Your task to perform on an android device: uninstall "Firefox Browser" Image 0: 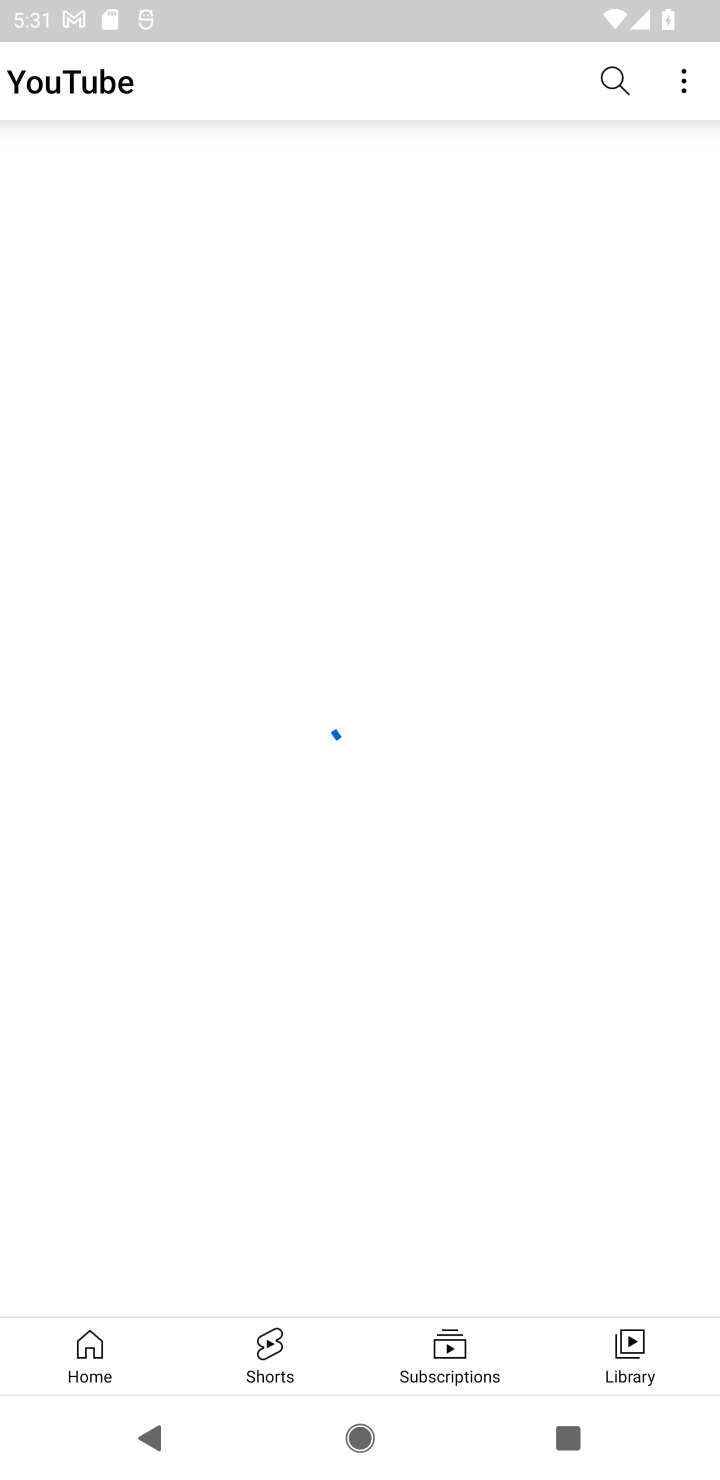
Step 0: press home button
Your task to perform on an android device: uninstall "Firefox Browser" Image 1: 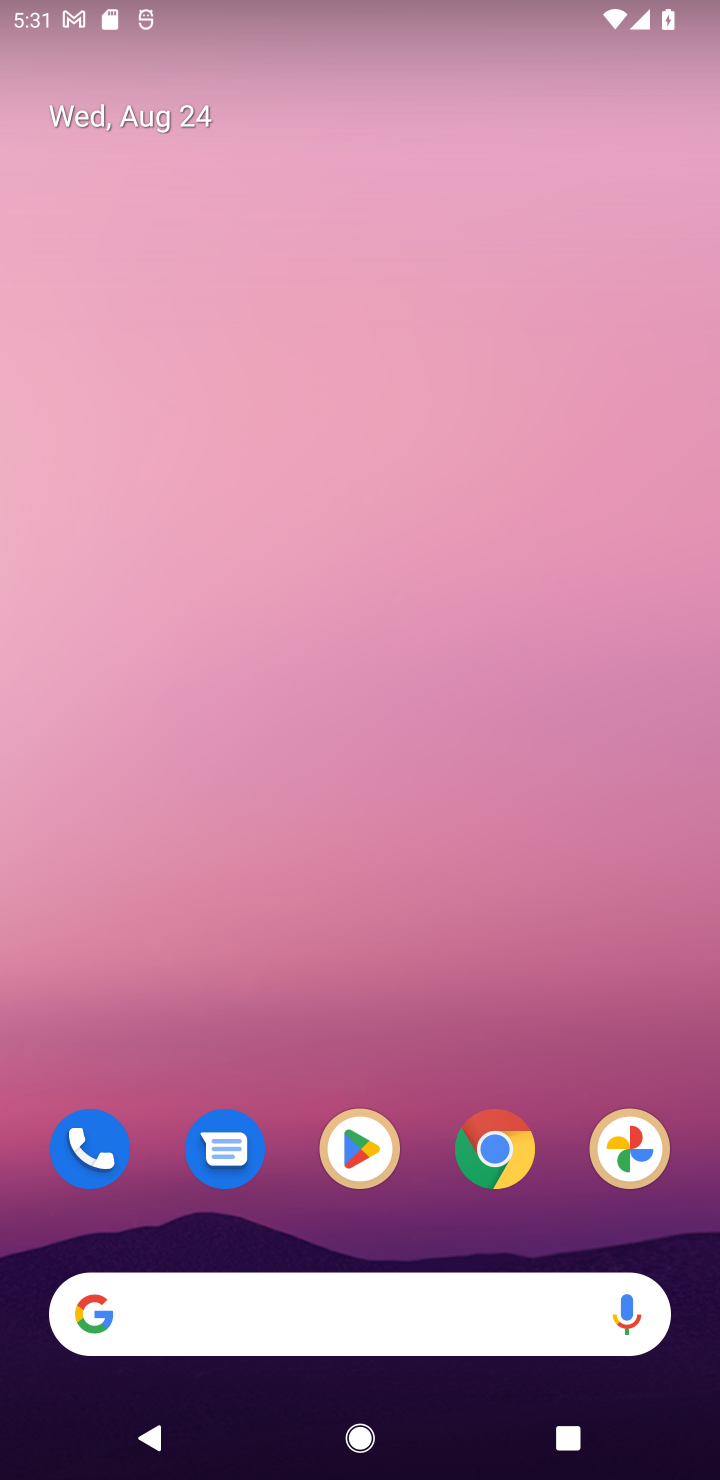
Step 1: click (370, 1146)
Your task to perform on an android device: uninstall "Firefox Browser" Image 2: 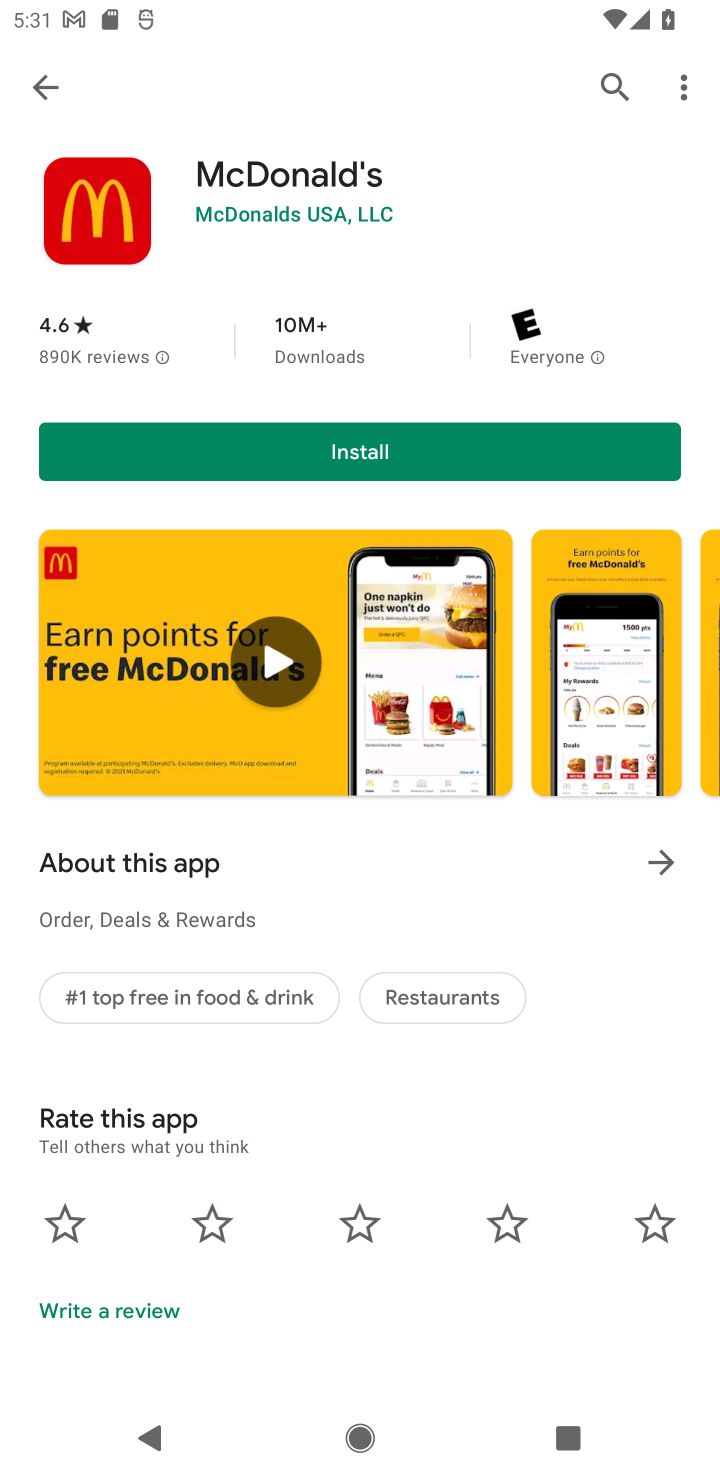
Step 2: click (611, 84)
Your task to perform on an android device: uninstall "Firefox Browser" Image 3: 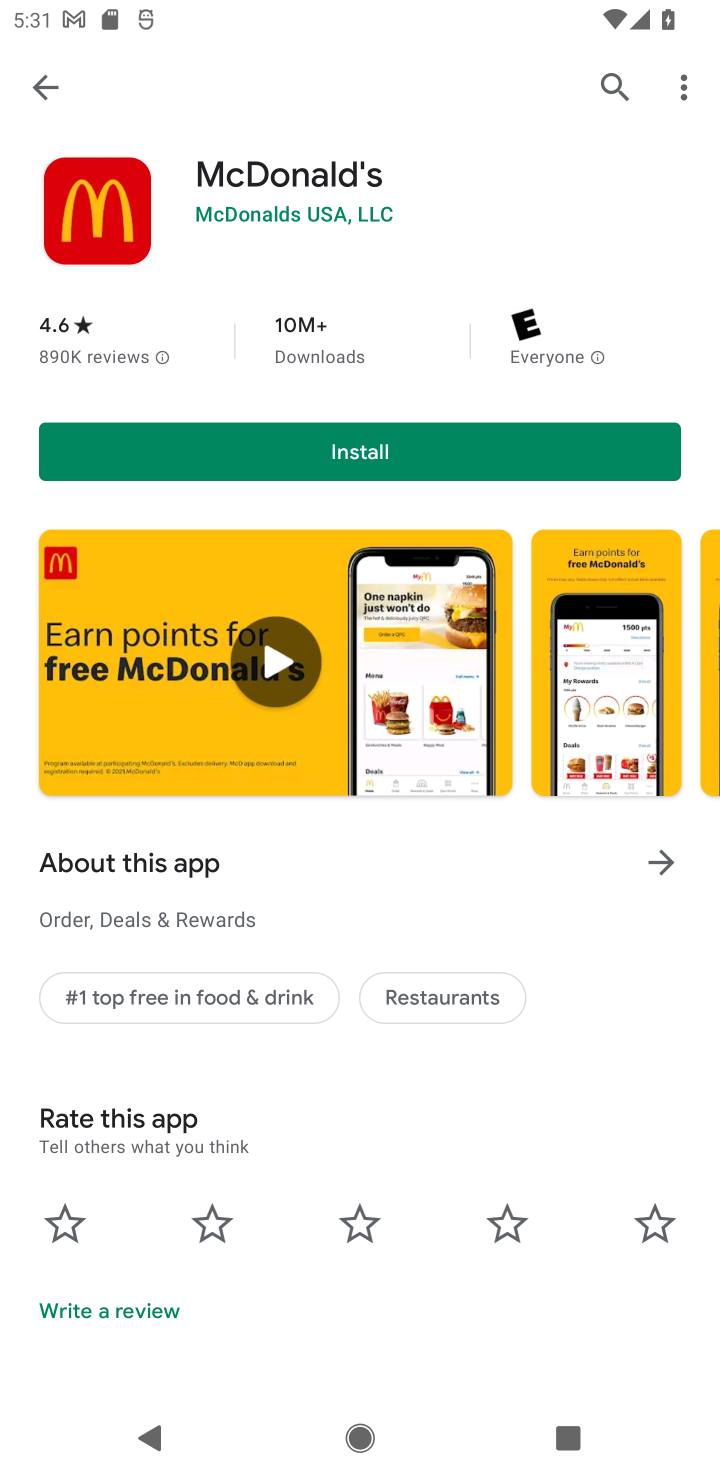
Step 3: click (606, 76)
Your task to perform on an android device: uninstall "Firefox Browser" Image 4: 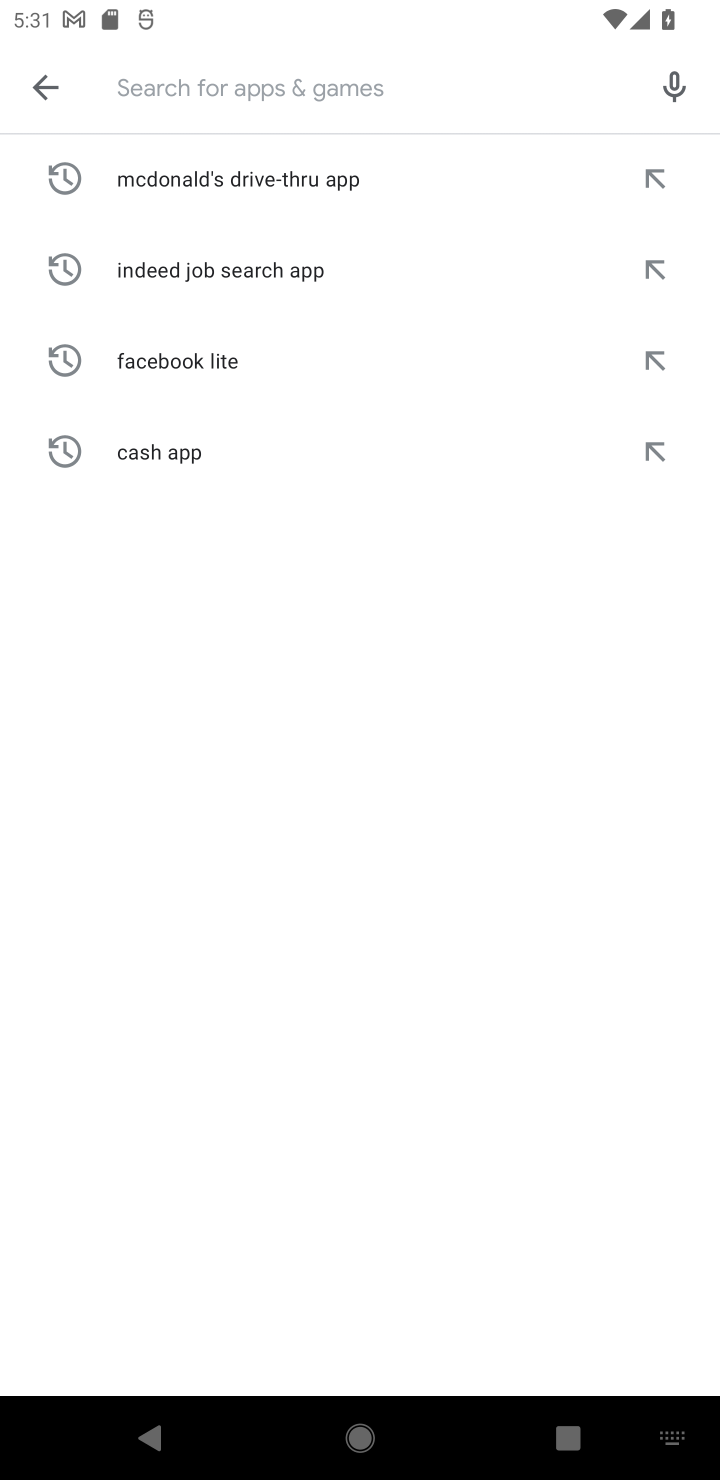
Step 4: type "Firefox Browser"
Your task to perform on an android device: uninstall "Firefox Browser" Image 5: 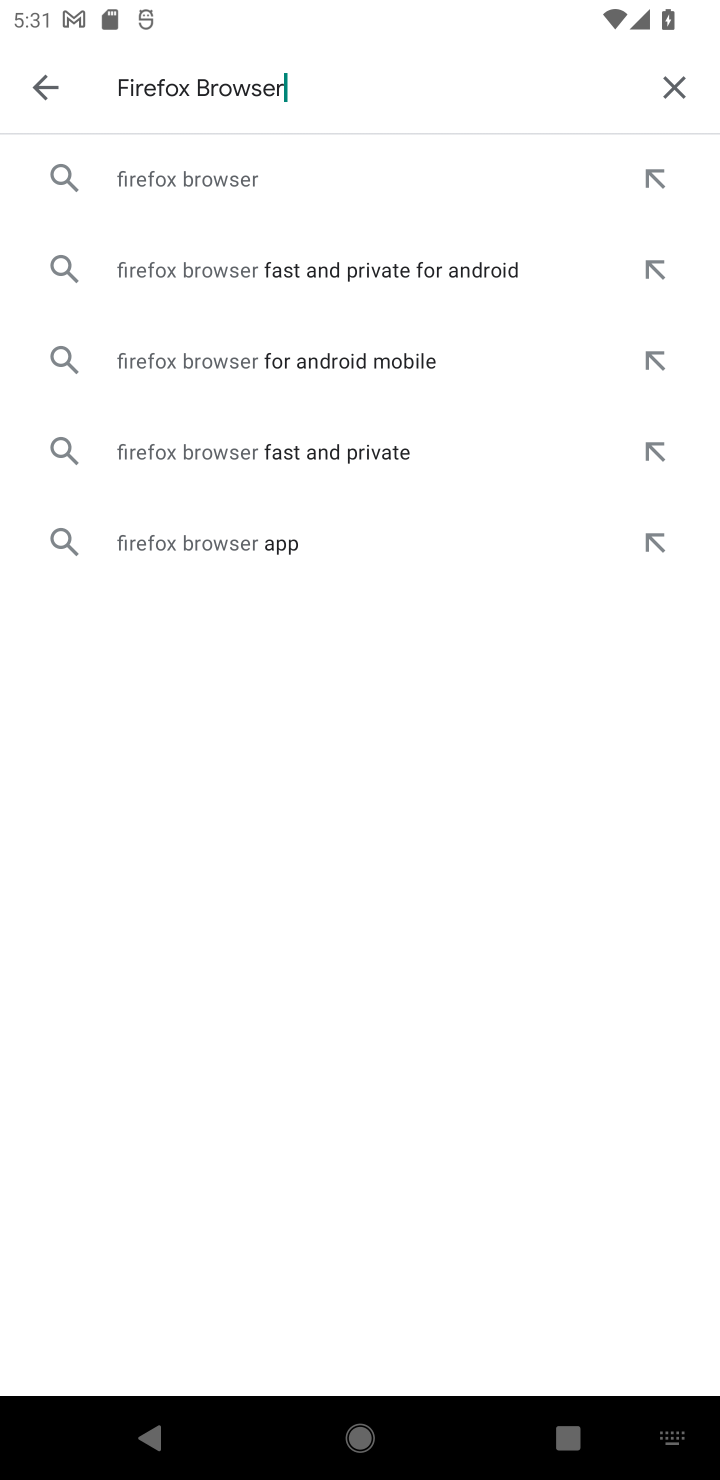
Step 5: click (218, 183)
Your task to perform on an android device: uninstall "Firefox Browser" Image 6: 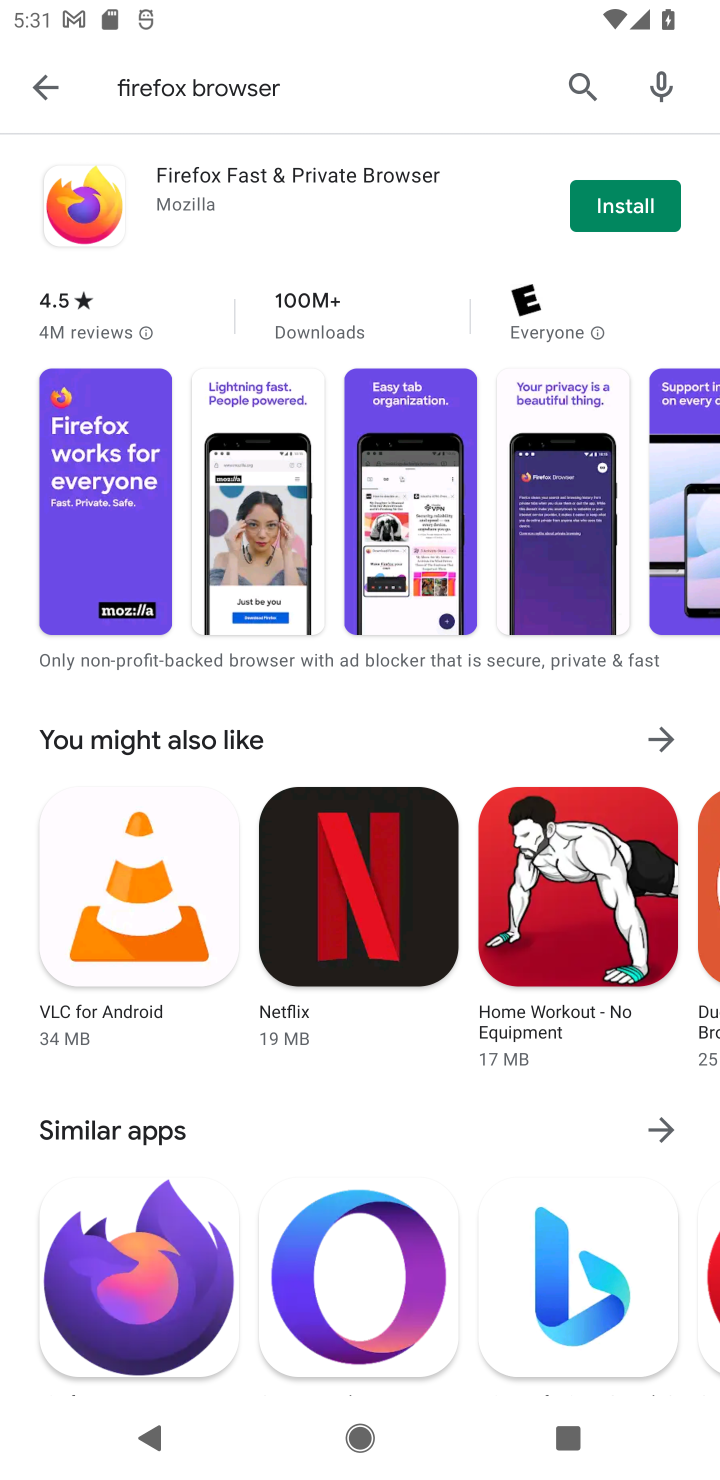
Step 6: task complete